Your task to perform on an android device: Search for top rated sushi restaurants on Maps Image 0: 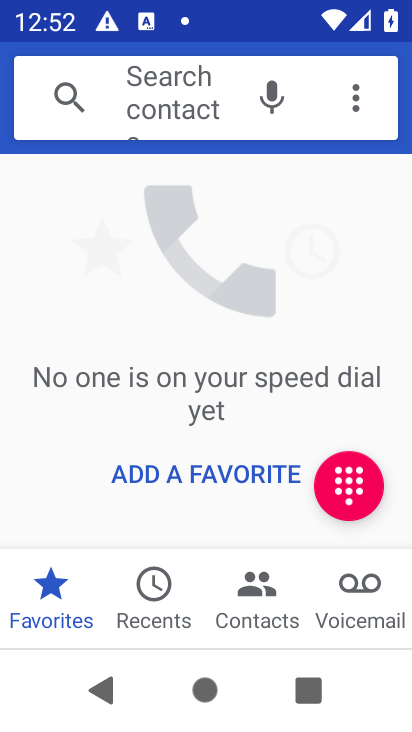
Step 0: press home button
Your task to perform on an android device: Search for top rated sushi restaurants on Maps Image 1: 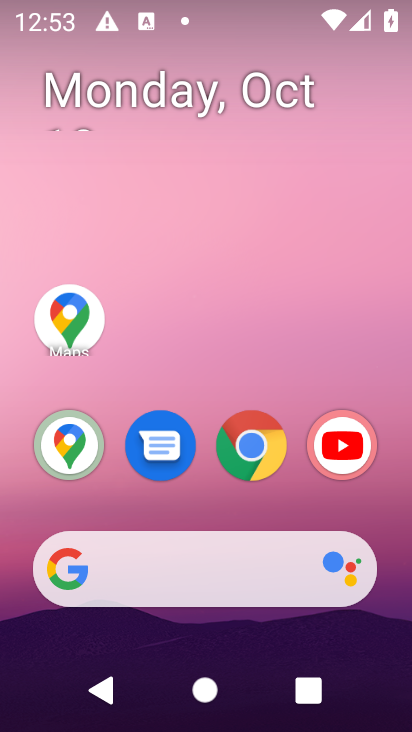
Step 1: click (73, 316)
Your task to perform on an android device: Search for top rated sushi restaurants on Maps Image 2: 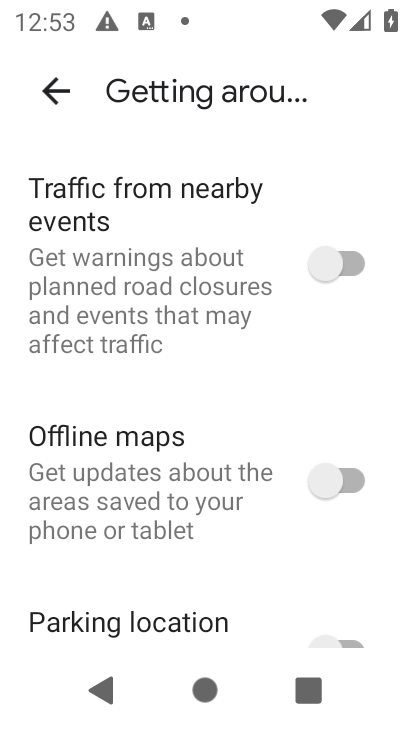
Step 2: click (53, 88)
Your task to perform on an android device: Search for top rated sushi restaurants on Maps Image 3: 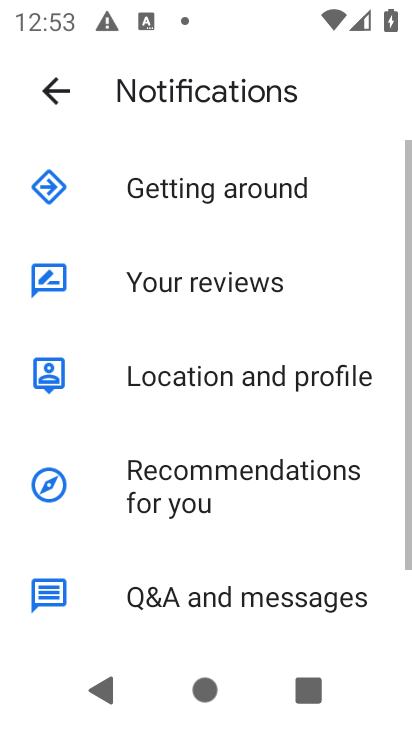
Step 3: click (53, 88)
Your task to perform on an android device: Search for top rated sushi restaurants on Maps Image 4: 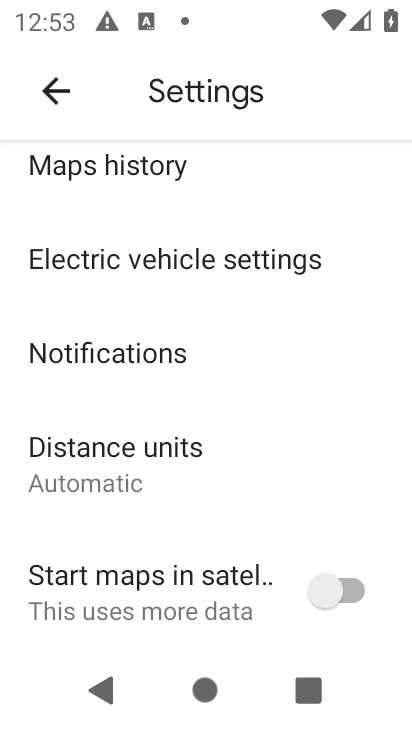
Step 4: click (53, 88)
Your task to perform on an android device: Search for top rated sushi restaurants on Maps Image 5: 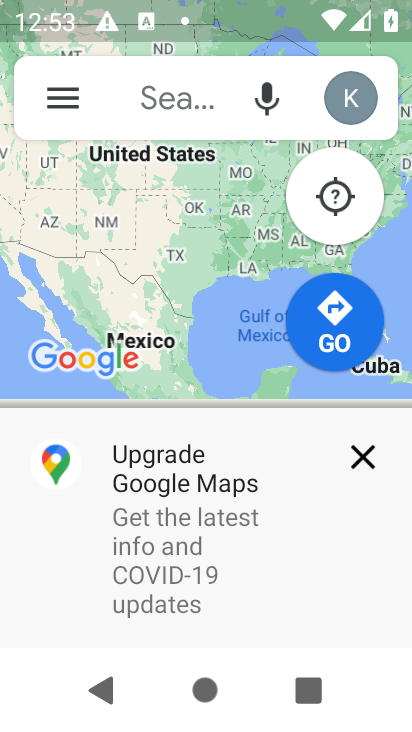
Step 5: click (166, 101)
Your task to perform on an android device: Search for top rated sushi restaurants on Maps Image 6: 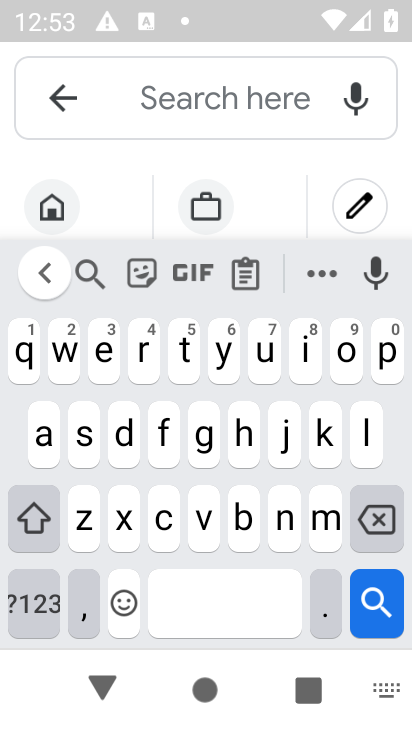
Step 6: type "sushi restaurants"
Your task to perform on an android device: Search for top rated sushi restaurants on Maps Image 7: 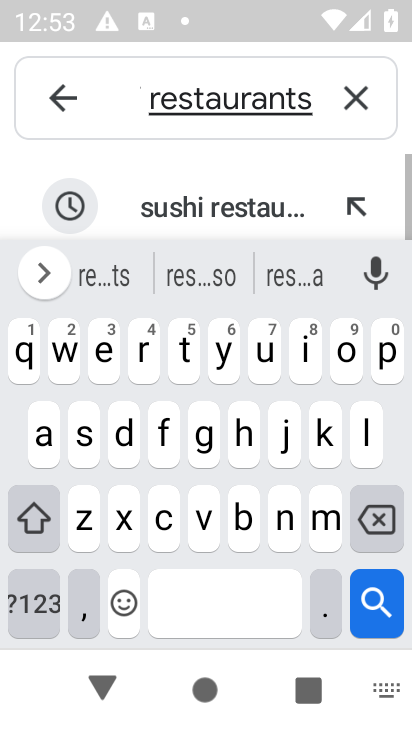
Step 7: click (178, 206)
Your task to perform on an android device: Search for top rated sushi restaurants on Maps Image 8: 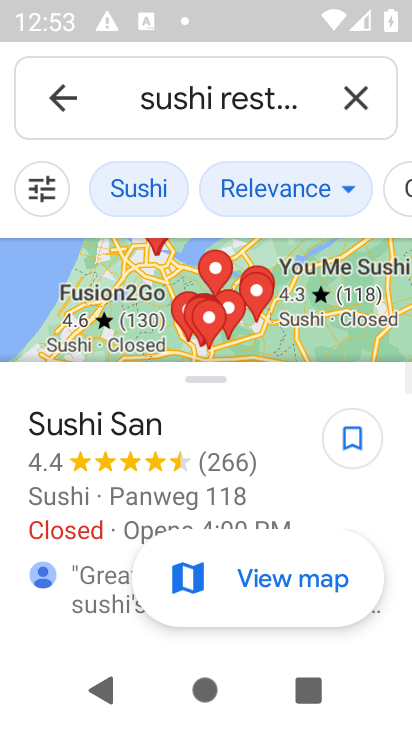
Step 8: click (111, 424)
Your task to perform on an android device: Search for top rated sushi restaurants on Maps Image 9: 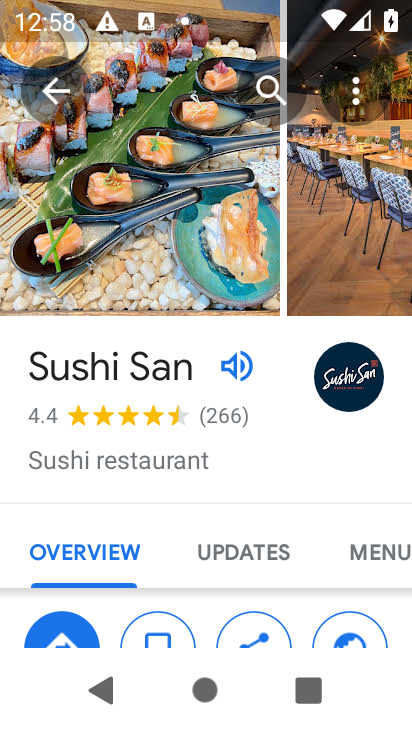
Step 9: task complete